Your task to perform on an android device: uninstall "Chime – Mobile Banking" Image 0: 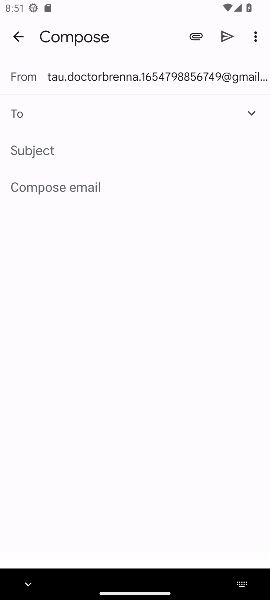
Step 0: drag from (186, 314) to (209, 79)
Your task to perform on an android device: uninstall "Chime – Mobile Banking" Image 1: 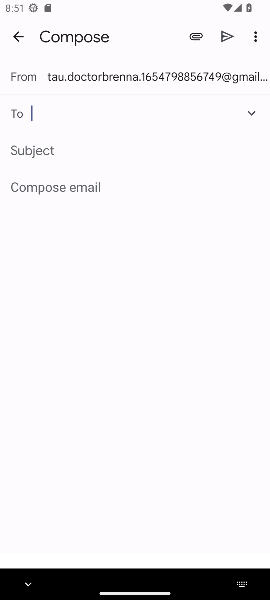
Step 1: drag from (135, 389) to (135, 195)
Your task to perform on an android device: uninstall "Chime – Mobile Banking" Image 2: 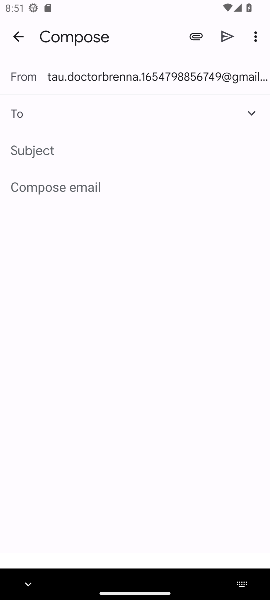
Step 2: press home button
Your task to perform on an android device: uninstall "Chime – Mobile Banking" Image 3: 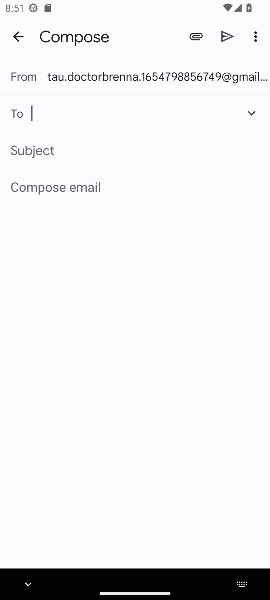
Step 3: drag from (161, 442) to (205, 147)
Your task to perform on an android device: uninstall "Chime – Mobile Banking" Image 4: 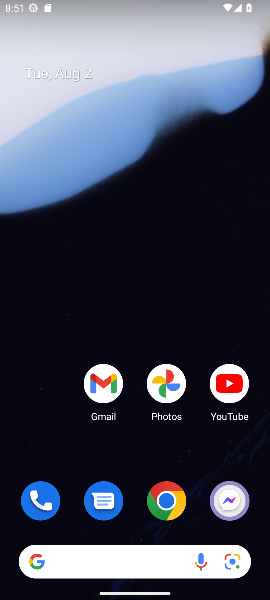
Step 4: drag from (137, 526) to (124, 117)
Your task to perform on an android device: uninstall "Chime – Mobile Banking" Image 5: 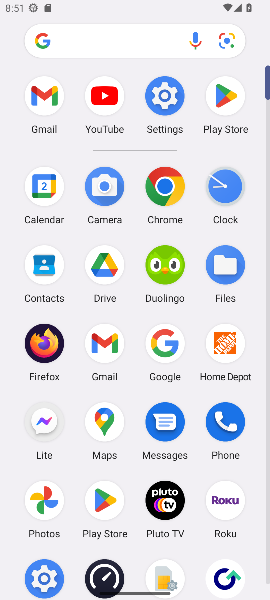
Step 5: click (216, 98)
Your task to perform on an android device: uninstall "Chime – Mobile Banking" Image 6: 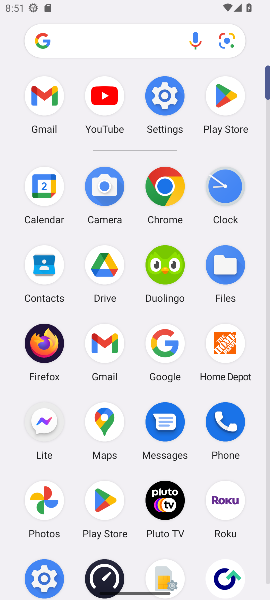
Step 6: click (216, 98)
Your task to perform on an android device: uninstall "Chime – Mobile Banking" Image 7: 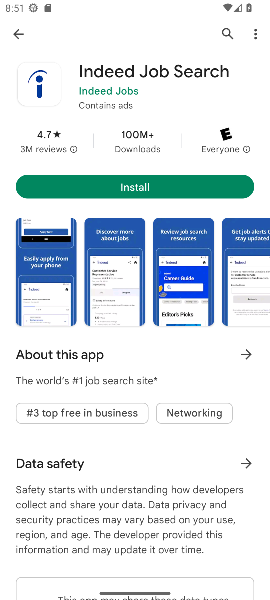
Step 7: drag from (171, 467) to (245, 559)
Your task to perform on an android device: uninstall "Chime – Mobile Banking" Image 8: 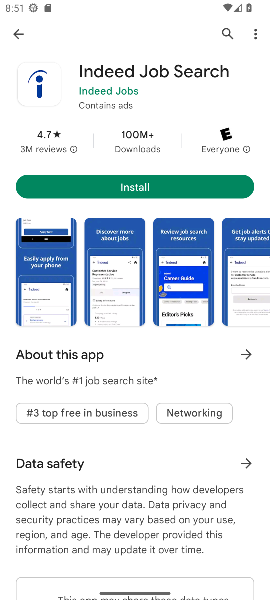
Step 8: click (228, 29)
Your task to perform on an android device: uninstall "Chime – Mobile Banking" Image 9: 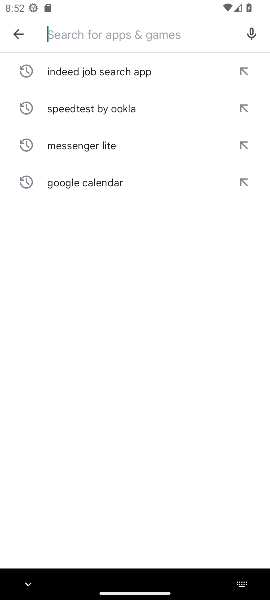
Step 9: type "Chime – Mobile Banking"
Your task to perform on an android device: uninstall "Chime – Mobile Banking" Image 10: 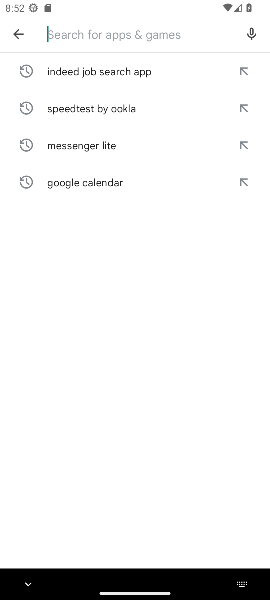
Step 10: type ""
Your task to perform on an android device: uninstall "Chime – Mobile Banking" Image 11: 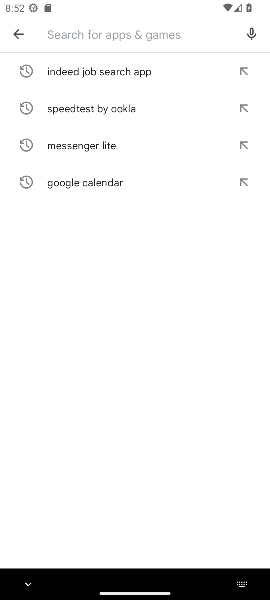
Step 11: type "Chime – Mobile Banking"
Your task to perform on an android device: uninstall "Chime – Mobile Banking" Image 12: 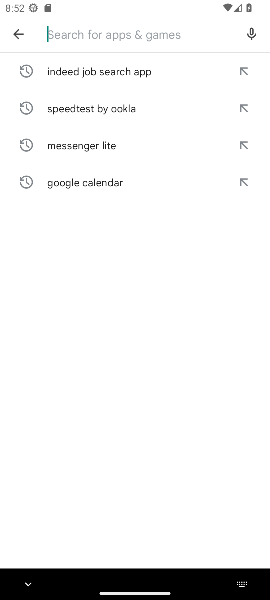
Step 12: type ""
Your task to perform on an android device: uninstall "Chime – Mobile Banking" Image 13: 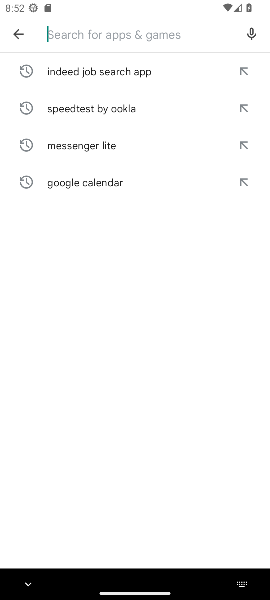
Step 13: type "Chime – Mobile Banking"
Your task to perform on an android device: uninstall "Chime – Mobile Banking" Image 14: 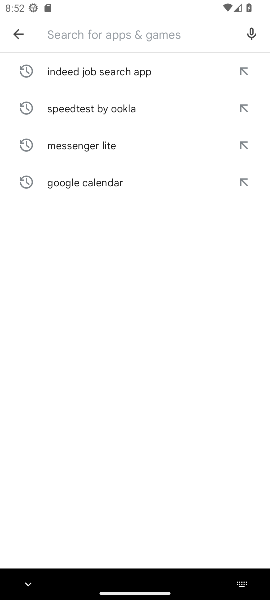
Step 14: type ""
Your task to perform on an android device: uninstall "Chime – Mobile Banking" Image 15: 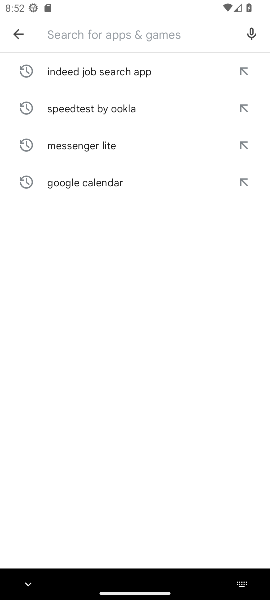
Step 15: type "Chime – Mobile Banking"
Your task to perform on an android device: uninstall "Chime – Mobile Banking" Image 16: 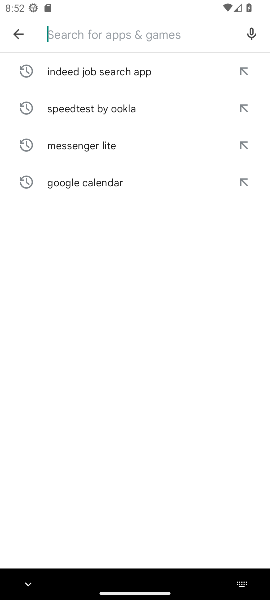
Step 16: type ""
Your task to perform on an android device: uninstall "Chime – Mobile Banking" Image 17: 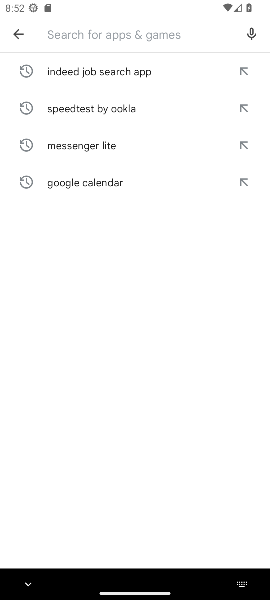
Step 17: type ""
Your task to perform on an android device: uninstall "Chime – Mobile Banking" Image 18: 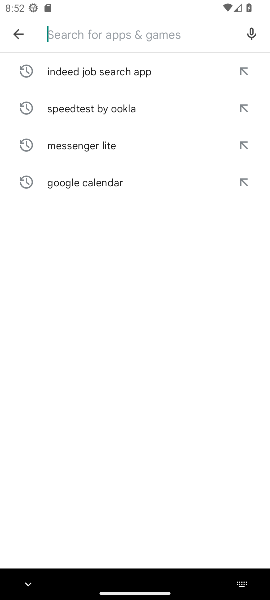
Step 18: press home button
Your task to perform on an android device: uninstall "Chime – Mobile Banking" Image 19: 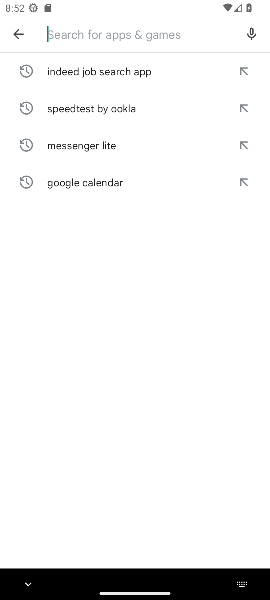
Step 19: press home button
Your task to perform on an android device: uninstall "Chime – Mobile Banking" Image 20: 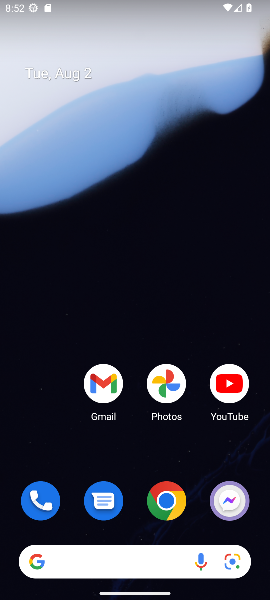
Step 20: drag from (145, 511) to (200, 155)
Your task to perform on an android device: uninstall "Chime – Mobile Banking" Image 21: 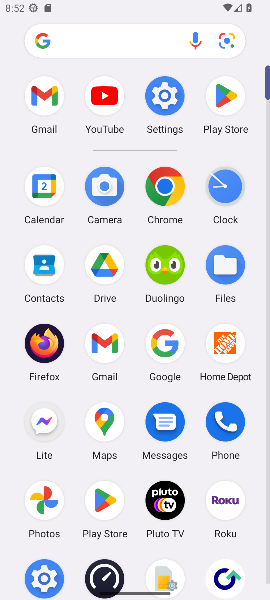
Step 21: click (221, 109)
Your task to perform on an android device: uninstall "Chime – Mobile Banking" Image 22: 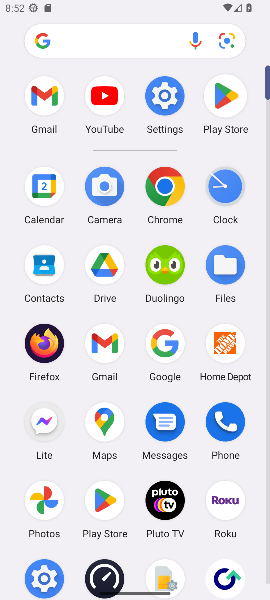
Step 22: click (221, 109)
Your task to perform on an android device: uninstall "Chime – Mobile Banking" Image 23: 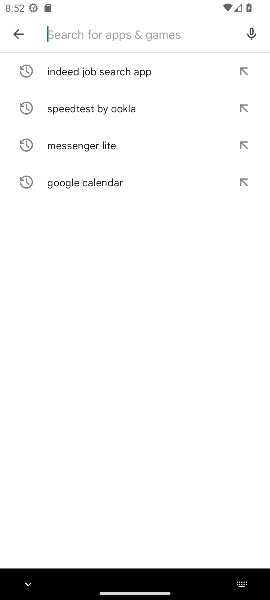
Step 23: click (163, 38)
Your task to perform on an android device: uninstall "Chime – Mobile Banking" Image 24: 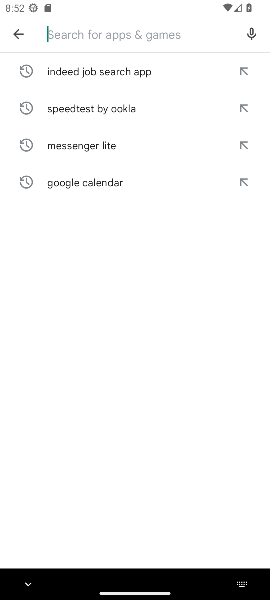
Step 24: type "Chime – Mobile Banking"
Your task to perform on an android device: uninstall "Chime – Mobile Banking" Image 25: 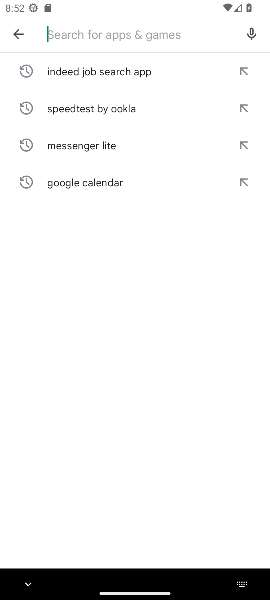
Step 25: type ""
Your task to perform on an android device: uninstall "Chime – Mobile Banking" Image 26: 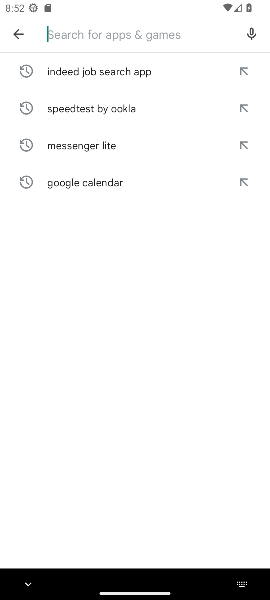
Step 26: task complete